Your task to perform on an android device: turn off notifications settings in the gmail app Image 0: 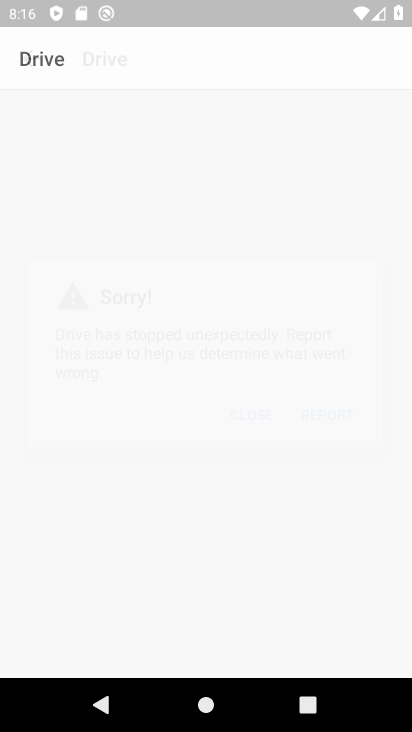
Step 0: drag from (299, 678) to (134, 191)
Your task to perform on an android device: turn off notifications settings in the gmail app Image 1: 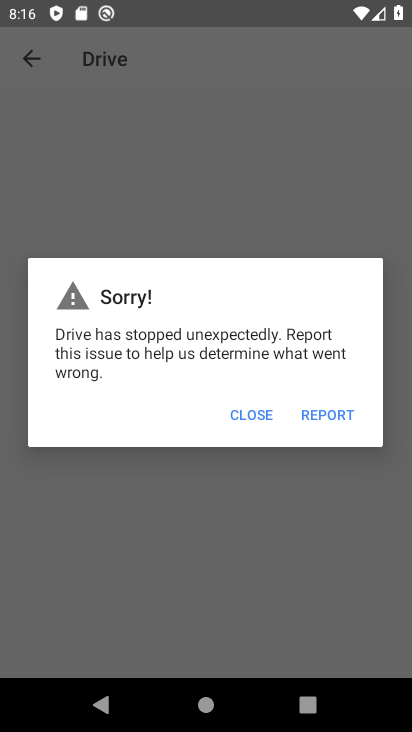
Step 1: click (321, 420)
Your task to perform on an android device: turn off notifications settings in the gmail app Image 2: 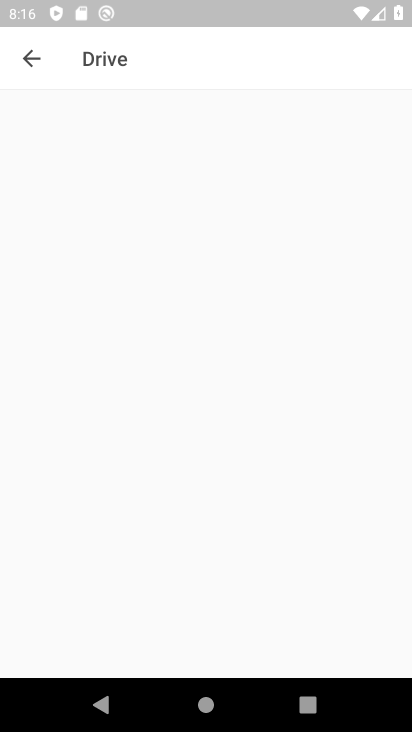
Step 2: click (321, 420)
Your task to perform on an android device: turn off notifications settings in the gmail app Image 3: 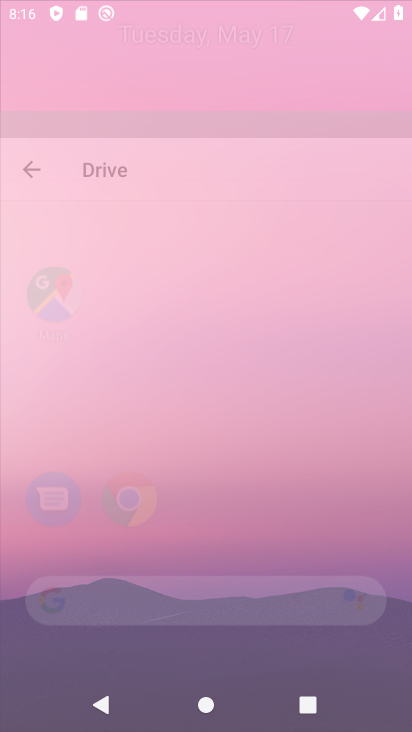
Step 3: click (320, 418)
Your task to perform on an android device: turn off notifications settings in the gmail app Image 4: 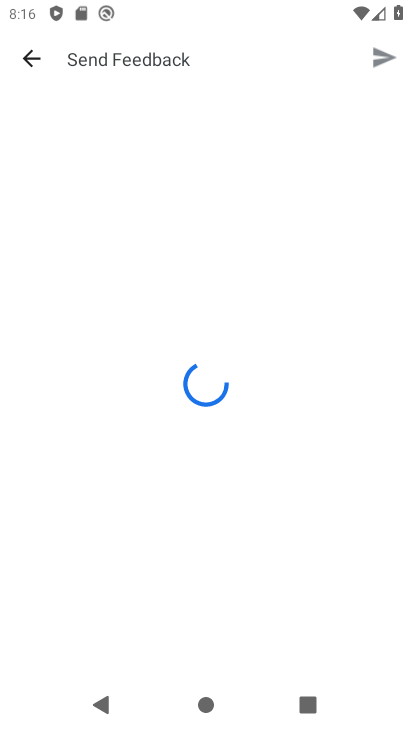
Step 4: drag from (316, 599) to (160, 0)
Your task to perform on an android device: turn off notifications settings in the gmail app Image 5: 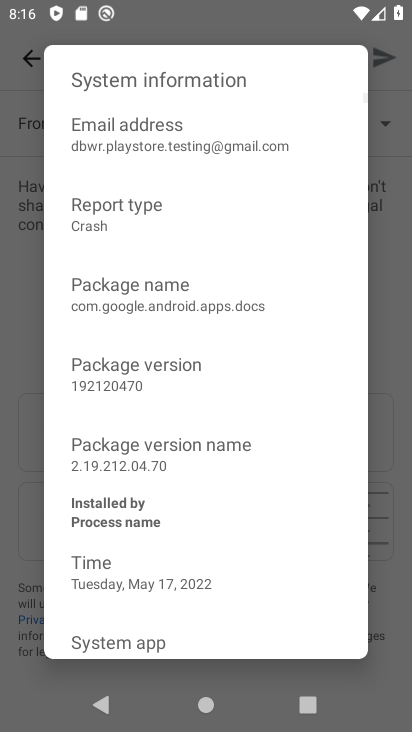
Step 5: click (389, 364)
Your task to perform on an android device: turn off notifications settings in the gmail app Image 6: 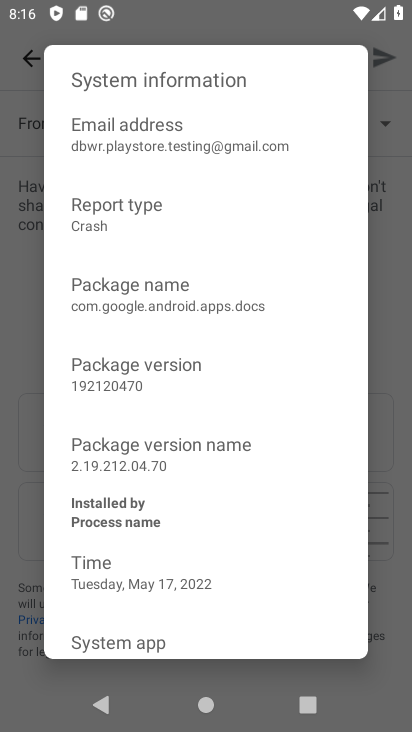
Step 6: click (389, 364)
Your task to perform on an android device: turn off notifications settings in the gmail app Image 7: 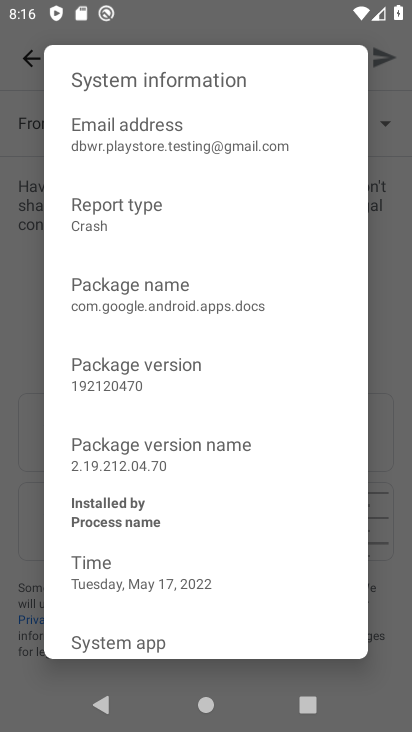
Step 7: click (389, 364)
Your task to perform on an android device: turn off notifications settings in the gmail app Image 8: 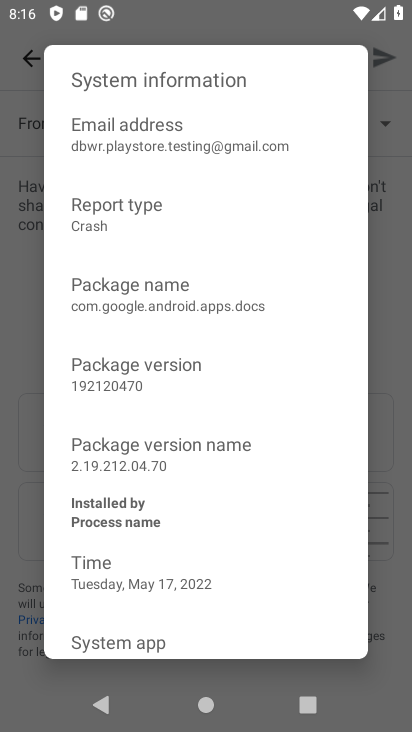
Step 8: click (392, 299)
Your task to perform on an android device: turn off notifications settings in the gmail app Image 9: 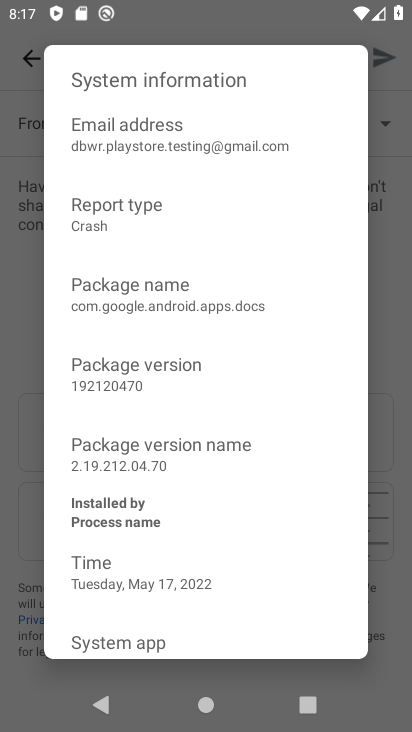
Step 9: press back button
Your task to perform on an android device: turn off notifications settings in the gmail app Image 10: 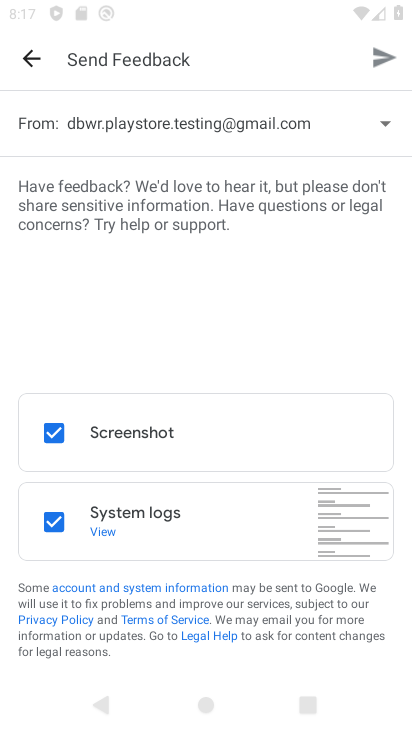
Step 10: press back button
Your task to perform on an android device: turn off notifications settings in the gmail app Image 11: 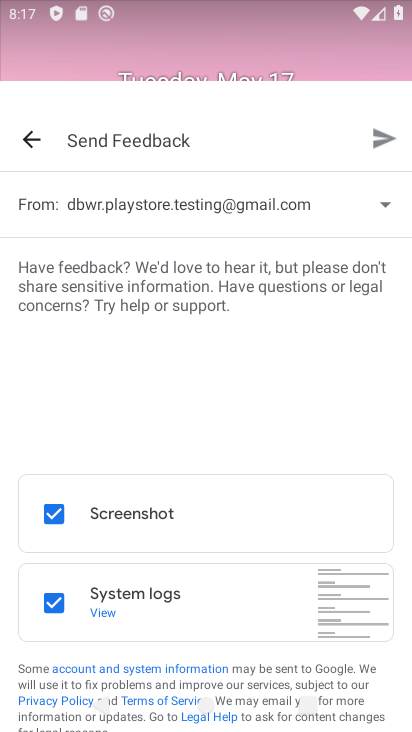
Step 11: press back button
Your task to perform on an android device: turn off notifications settings in the gmail app Image 12: 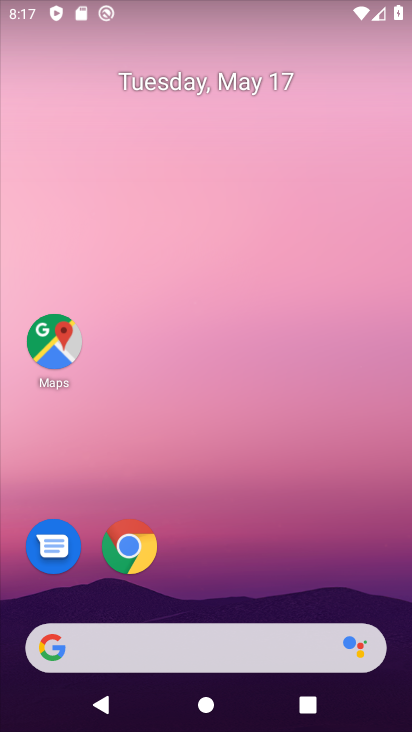
Step 12: drag from (278, 657) to (177, 46)
Your task to perform on an android device: turn off notifications settings in the gmail app Image 13: 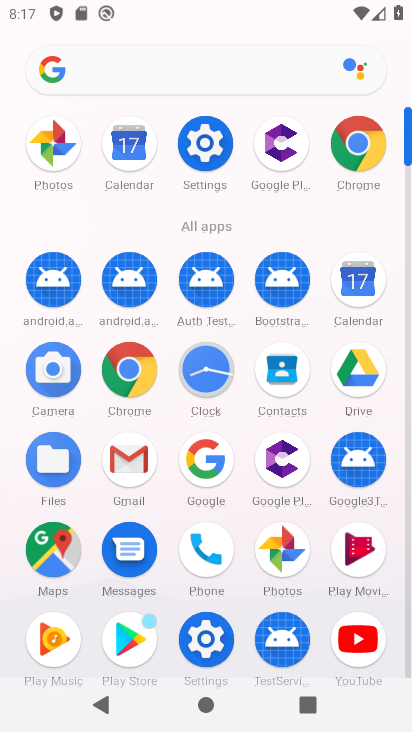
Step 13: click (137, 444)
Your task to perform on an android device: turn off notifications settings in the gmail app Image 14: 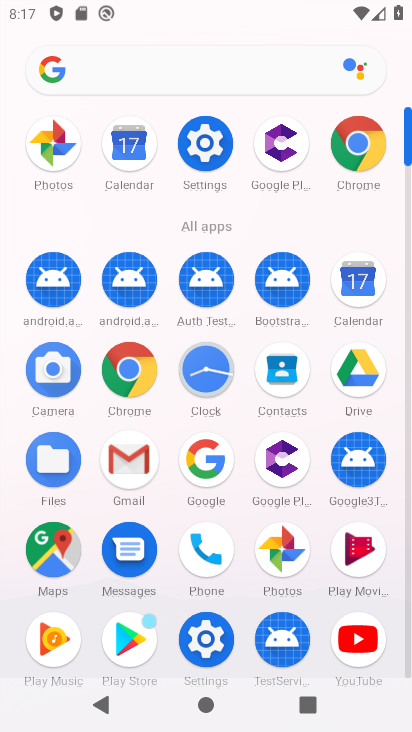
Step 14: click (138, 445)
Your task to perform on an android device: turn off notifications settings in the gmail app Image 15: 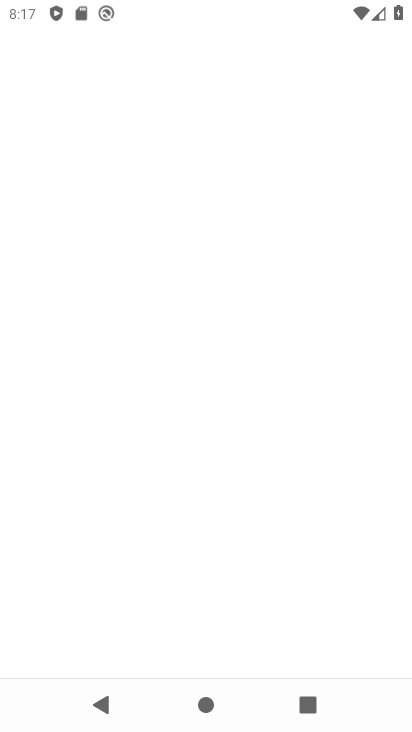
Step 15: click (163, 499)
Your task to perform on an android device: turn off notifications settings in the gmail app Image 16: 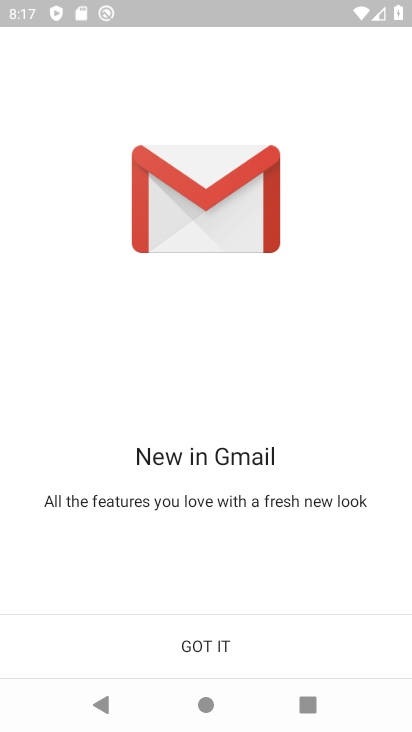
Step 16: click (213, 631)
Your task to perform on an android device: turn off notifications settings in the gmail app Image 17: 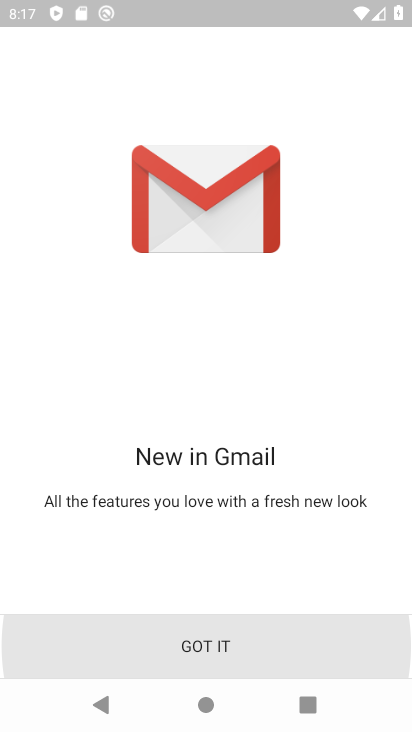
Step 17: click (213, 631)
Your task to perform on an android device: turn off notifications settings in the gmail app Image 18: 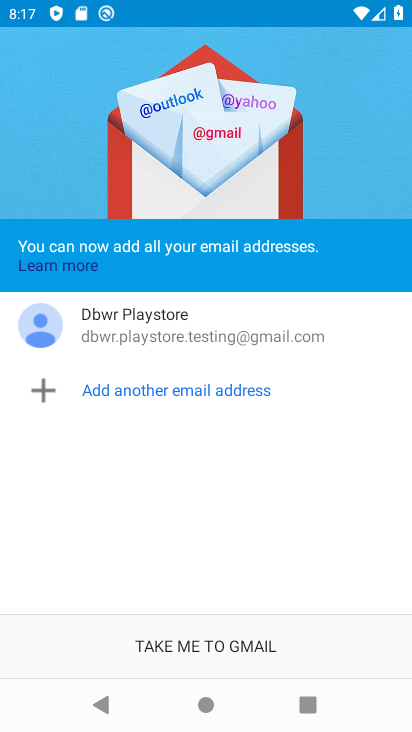
Step 18: click (193, 645)
Your task to perform on an android device: turn off notifications settings in the gmail app Image 19: 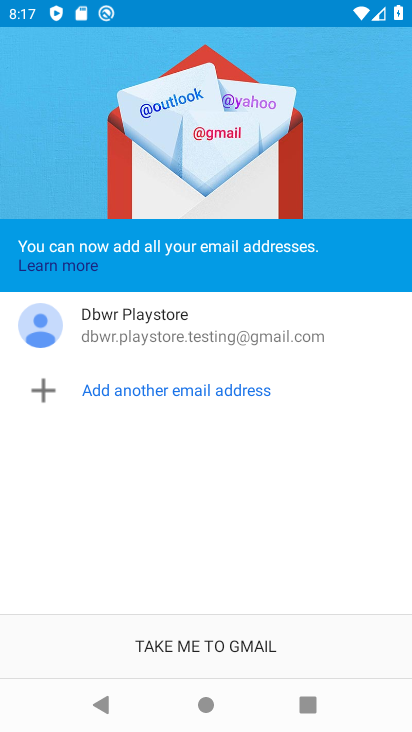
Step 19: click (193, 645)
Your task to perform on an android device: turn off notifications settings in the gmail app Image 20: 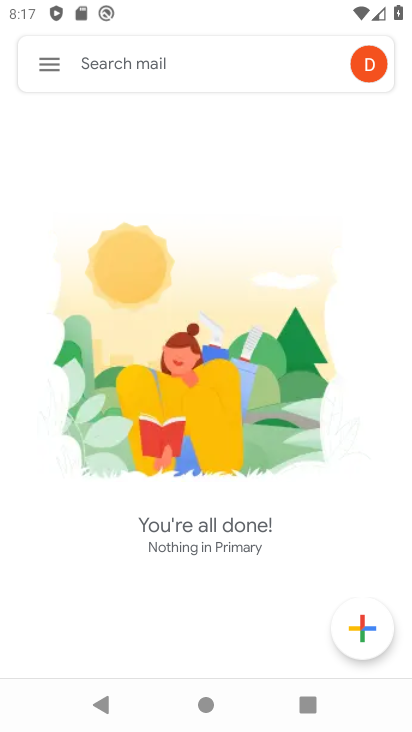
Step 20: click (60, 58)
Your task to perform on an android device: turn off notifications settings in the gmail app Image 21: 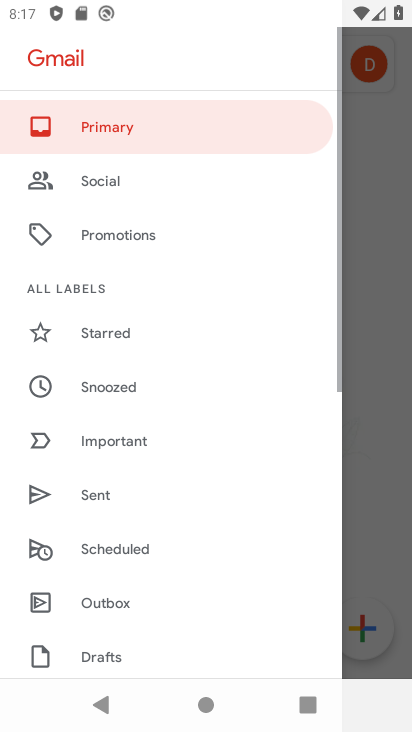
Step 21: drag from (113, 572) to (77, 135)
Your task to perform on an android device: turn off notifications settings in the gmail app Image 22: 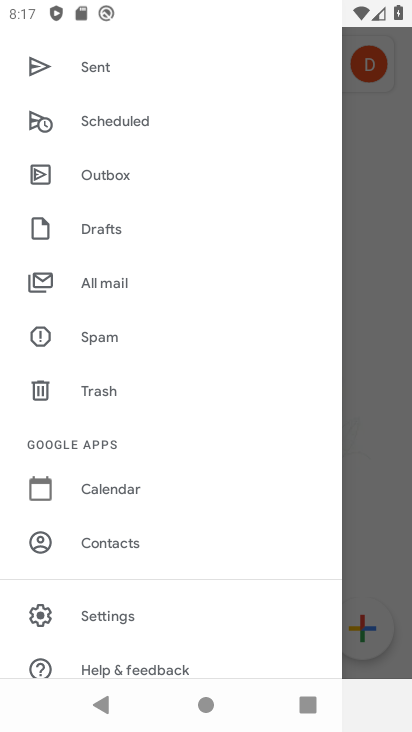
Step 22: click (105, 599)
Your task to perform on an android device: turn off notifications settings in the gmail app Image 23: 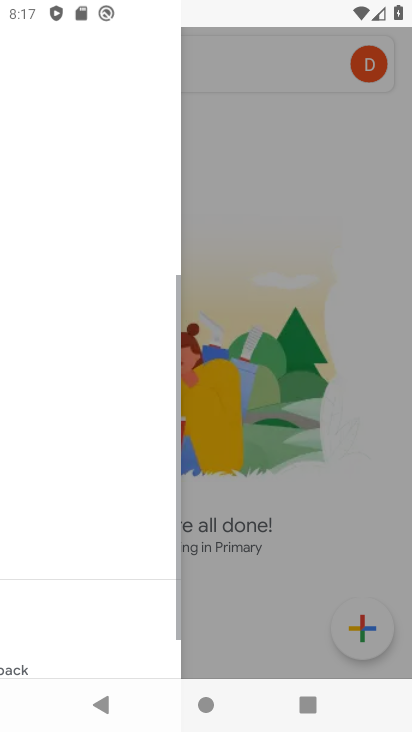
Step 23: click (105, 611)
Your task to perform on an android device: turn off notifications settings in the gmail app Image 24: 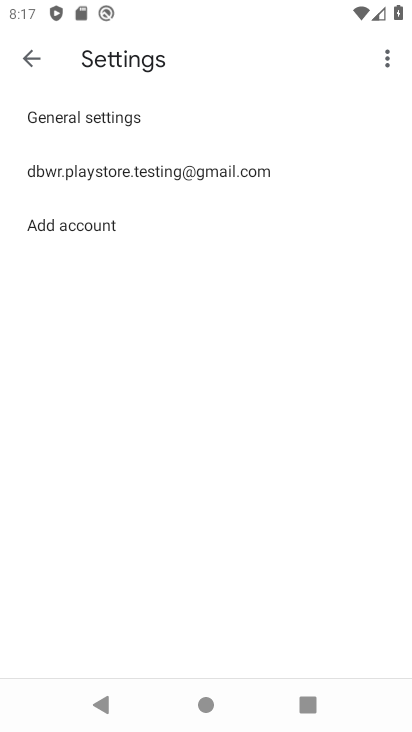
Step 24: click (120, 167)
Your task to perform on an android device: turn off notifications settings in the gmail app Image 25: 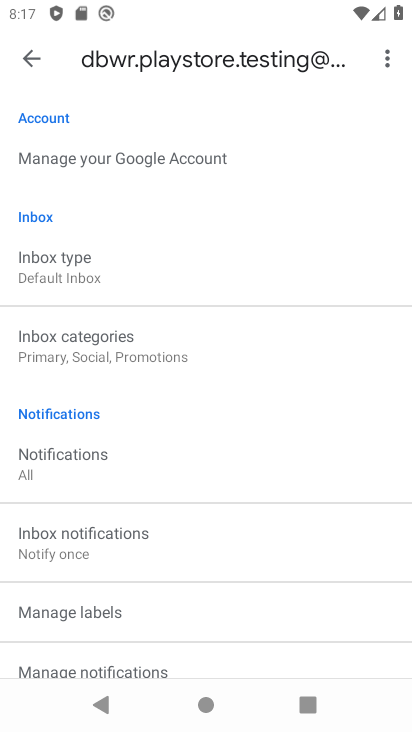
Step 25: click (42, 452)
Your task to perform on an android device: turn off notifications settings in the gmail app Image 26: 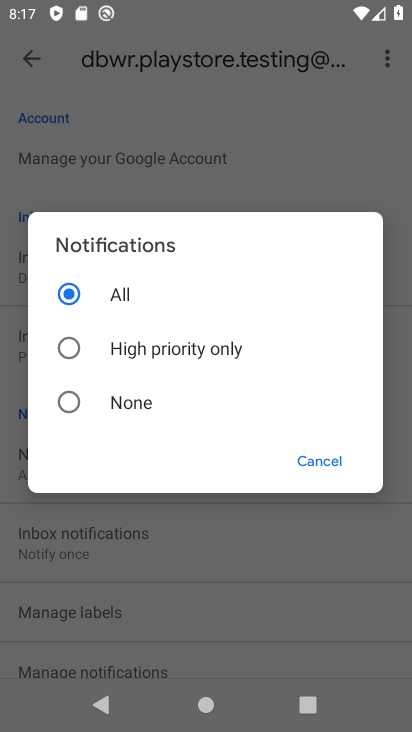
Step 26: click (71, 347)
Your task to perform on an android device: turn off notifications settings in the gmail app Image 27: 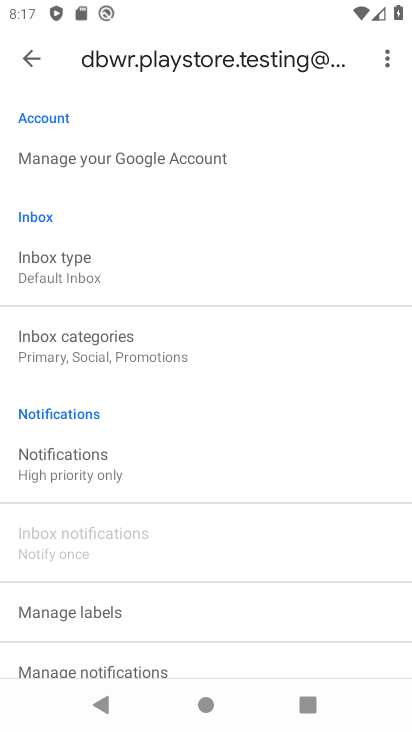
Step 27: task complete